Your task to perform on an android device: What's the weather going to be this weekend? Image 0: 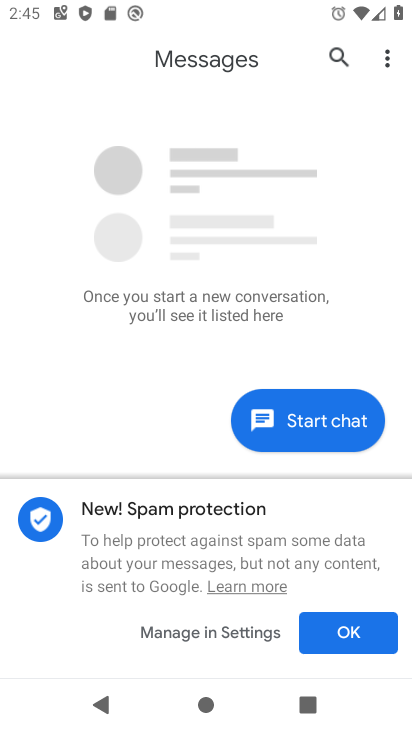
Step 0: press home button
Your task to perform on an android device: What's the weather going to be this weekend? Image 1: 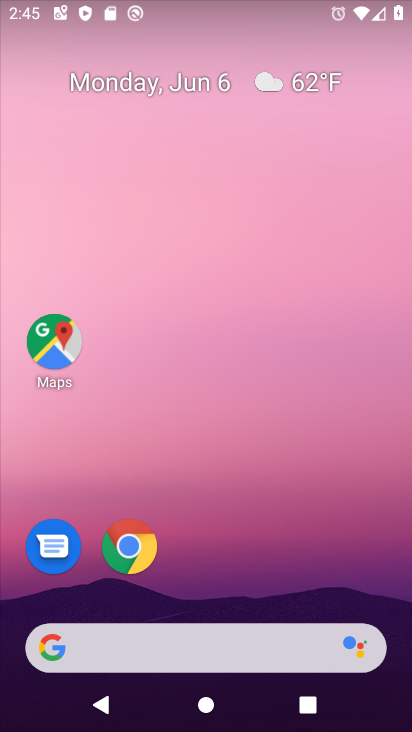
Step 1: drag from (240, 556) to (224, 164)
Your task to perform on an android device: What's the weather going to be this weekend? Image 2: 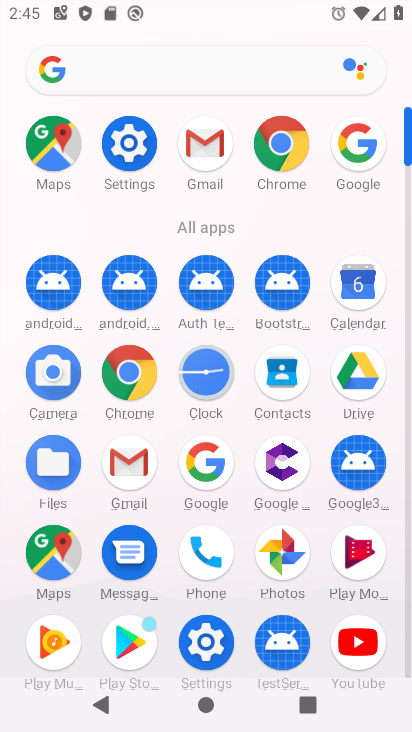
Step 2: click (191, 460)
Your task to perform on an android device: What's the weather going to be this weekend? Image 3: 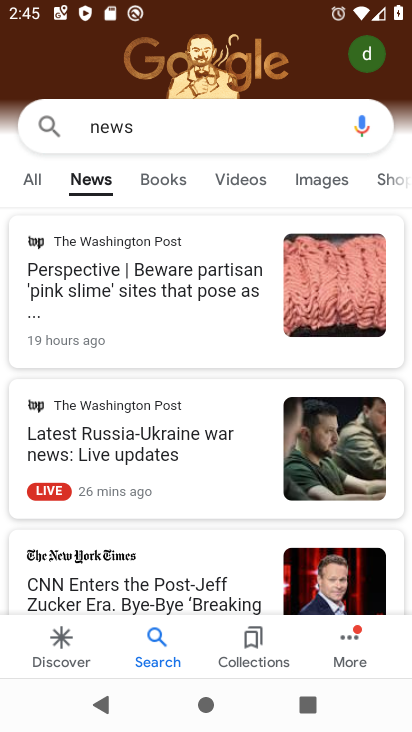
Step 3: click (154, 134)
Your task to perform on an android device: What's the weather going to be this weekend? Image 4: 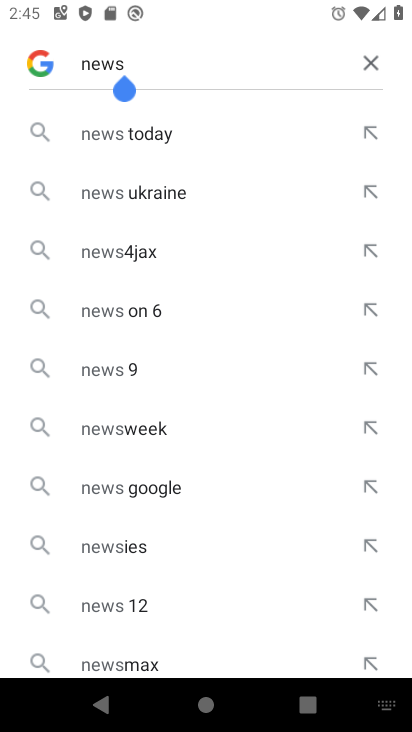
Step 4: click (363, 59)
Your task to perform on an android device: What's the weather going to be this weekend? Image 5: 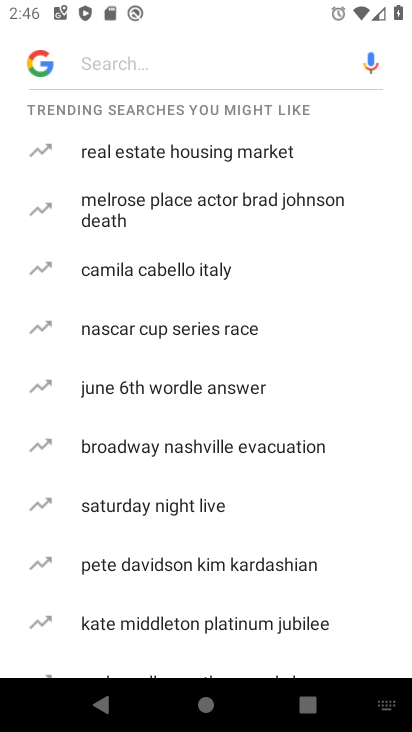
Step 5: click (122, 65)
Your task to perform on an android device: What's the weather going to be this weekend? Image 6: 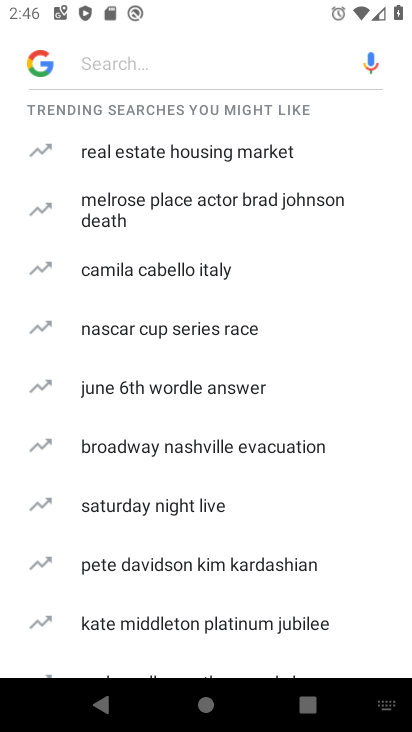
Step 6: type "weather"
Your task to perform on an android device: What's the weather going to be this weekend? Image 7: 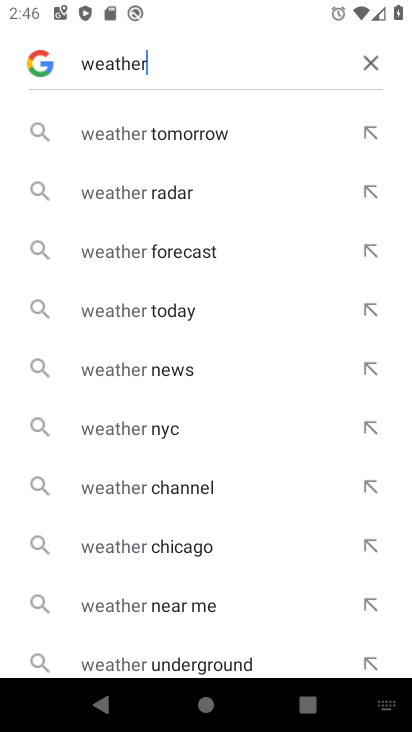
Step 7: click (201, 317)
Your task to perform on an android device: What's the weather going to be this weekend? Image 8: 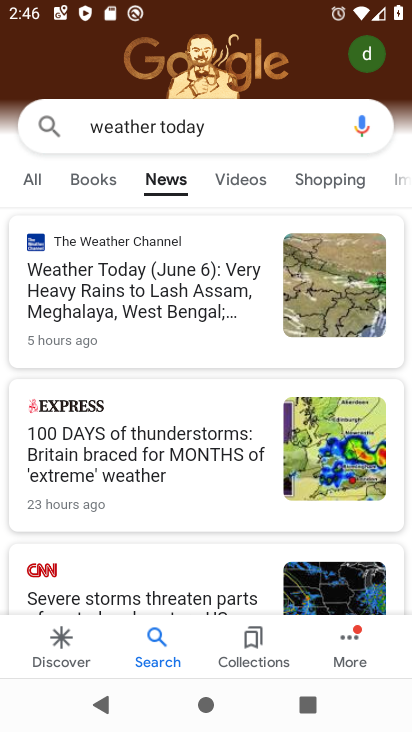
Step 8: click (38, 178)
Your task to perform on an android device: What's the weather going to be this weekend? Image 9: 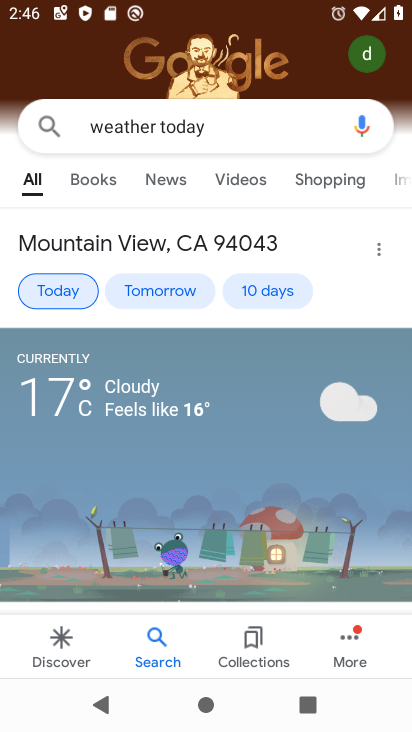
Step 9: click (288, 287)
Your task to perform on an android device: What's the weather going to be this weekend? Image 10: 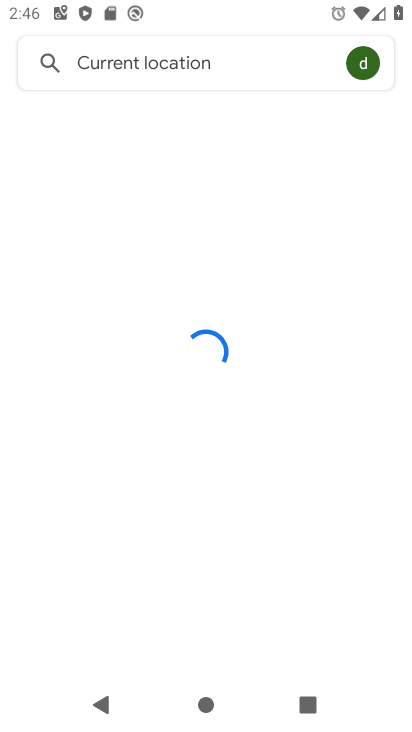
Step 10: click (296, 287)
Your task to perform on an android device: What's the weather going to be this weekend? Image 11: 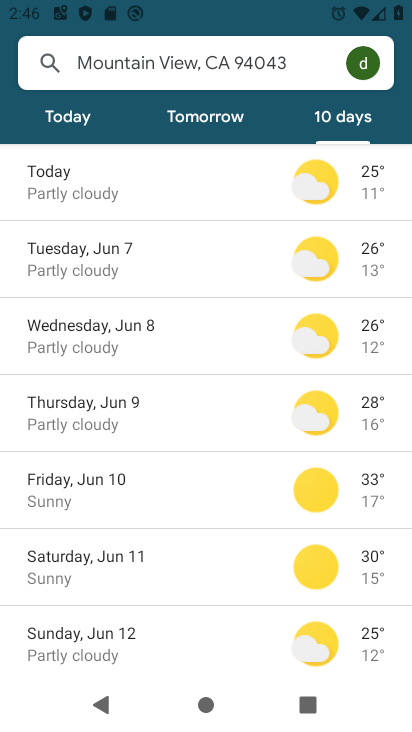
Step 11: drag from (192, 658) to (193, 263)
Your task to perform on an android device: What's the weather going to be this weekend? Image 12: 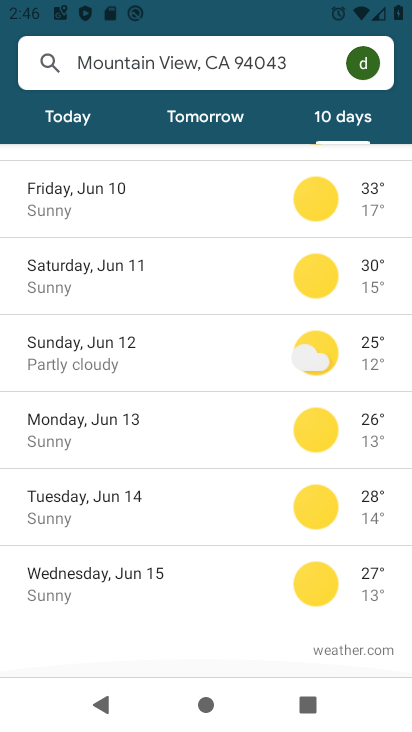
Step 12: drag from (207, 539) to (220, 240)
Your task to perform on an android device: What's the weather going to be this weekend? Image 13: 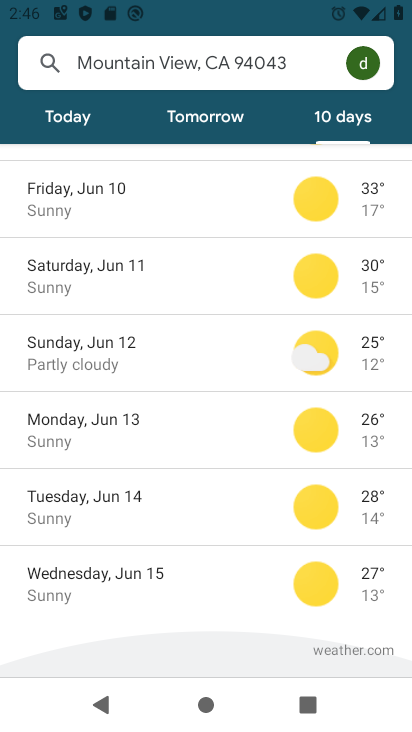
Step 13: drag from (227, 540) to (214, 293)
Your task to perform on an android device: What's the weather going to be this weekend? Image 14: 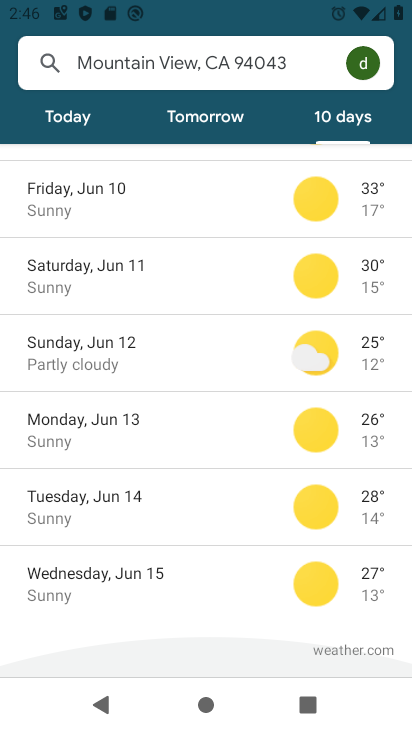
Step 14: drag from (200, 551) to (199, 285)
Your task to perform on an android device: What's the weather going to be this weekend? Image 15: 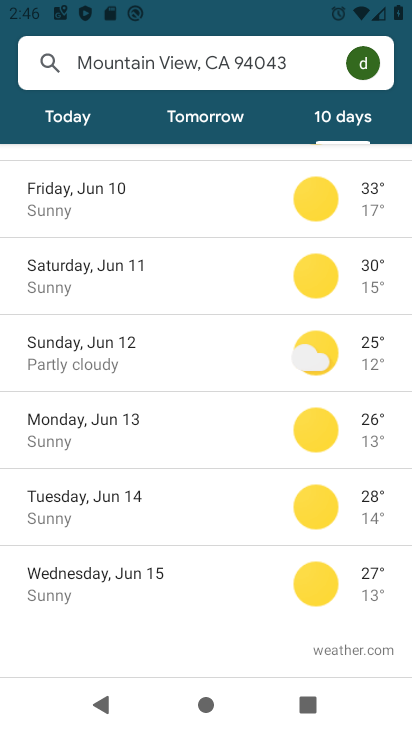
Step 15: click (223, 275)
Your task to perform on an android device: What's the weather going to be this weekend? Image 16: 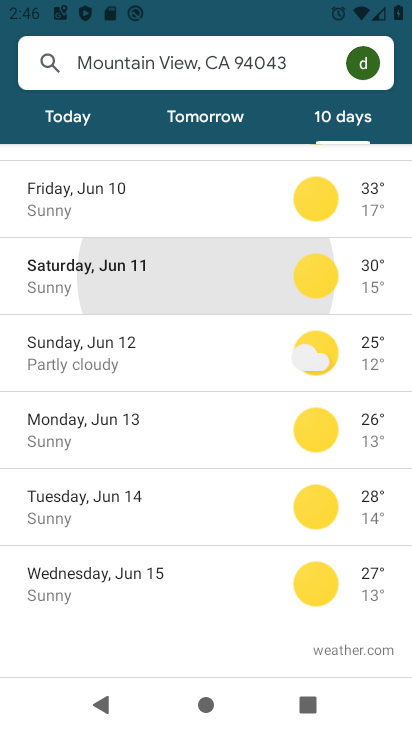
Step 16: task complete